Your task to perform on an android device: Search for Italian restaurants on Maps Image 0: 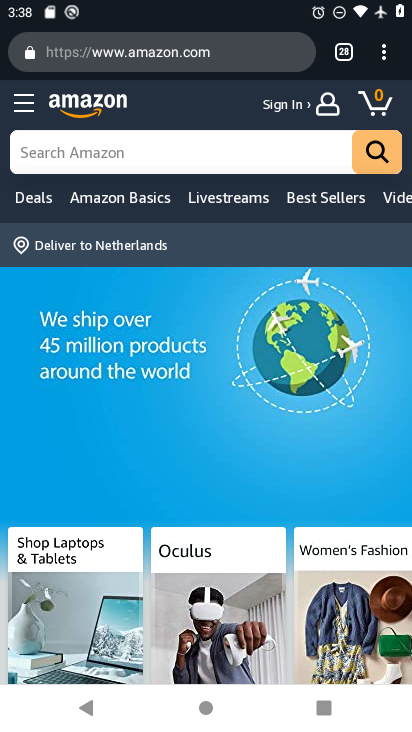
Step 0: press home button
Your task to perform on an android device: Search for Italian restaurants on Maps Image 1: 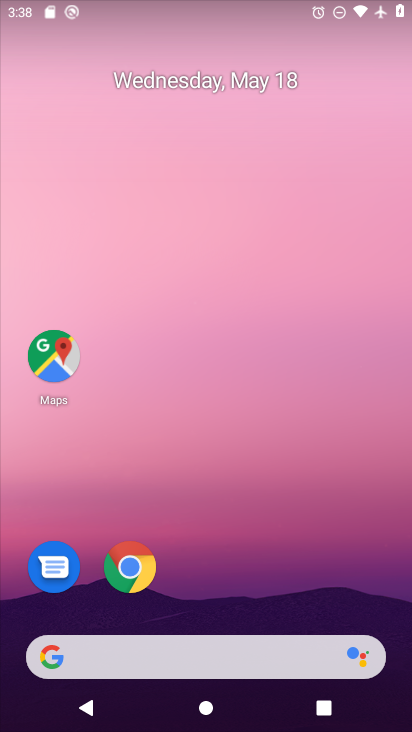
Step 1: drag from (232, 513) to (271, 252)
Your task to perform on an android device: Search for Italian restaurants on Maps Image 2: 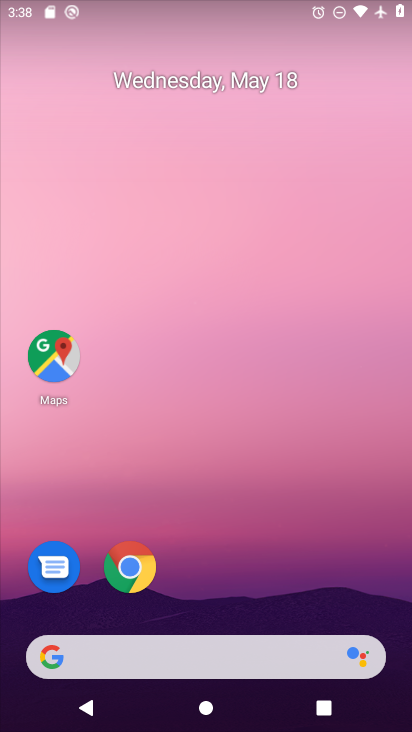
Step 2: click (64, 362)
Your task to perform on an android device: Search for Italian restaurants on Maps Image 3: 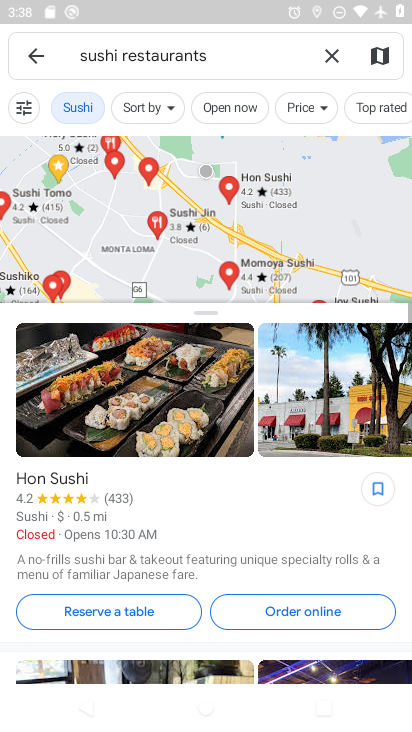
Step 3: click (329, 52)
Your task to perform on an android device: Search for Italian restaurants on Maps Image 4: 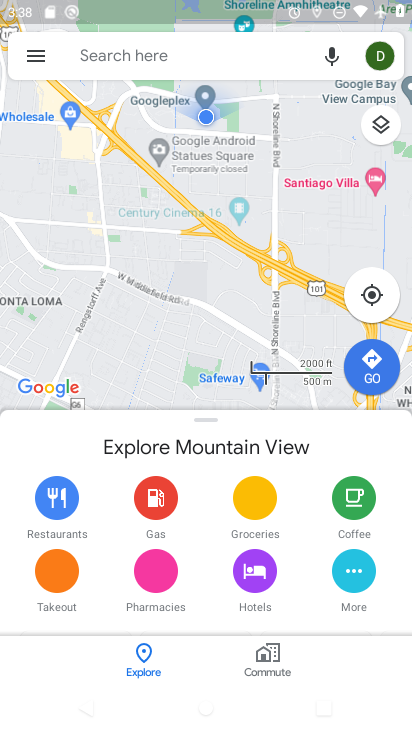
Step 4: click (210, 53)
Your task to perform on an android device: Search for Italian restaurants on Maps Image 5: 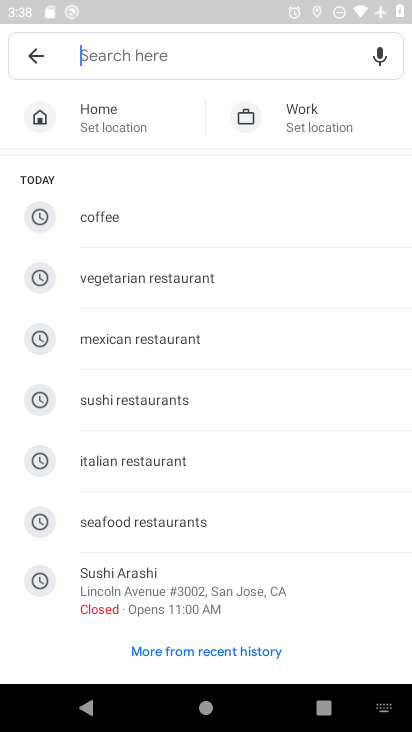
Step 5: click (168, 454)
Your task to perform on an android device: Search for Italian restaurants on Maps Image 6: 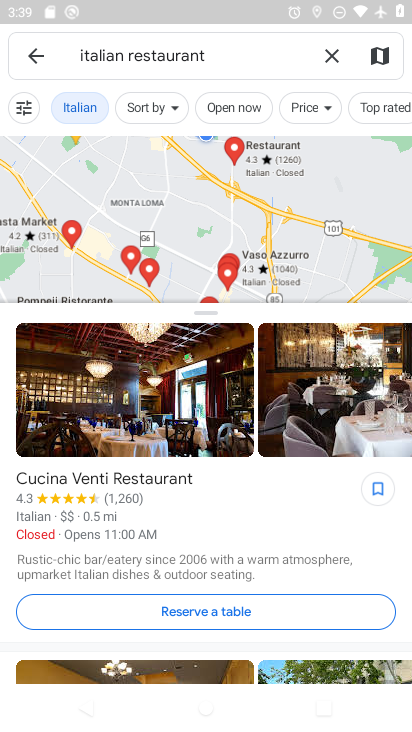
Step 6: task complete